Your task to perform on an android device: Play the last video I watched on Youtube Image 0: 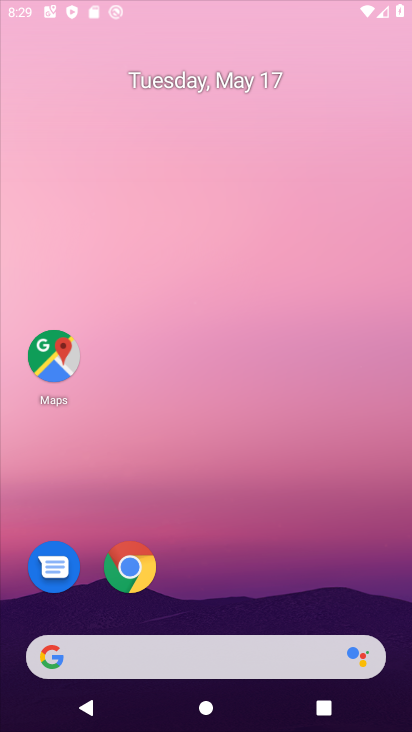
Step 0: drag from (181, 247) to (159, 149)
Your task to perform on an android device: Play the last video I watched on Youtube Image 1: 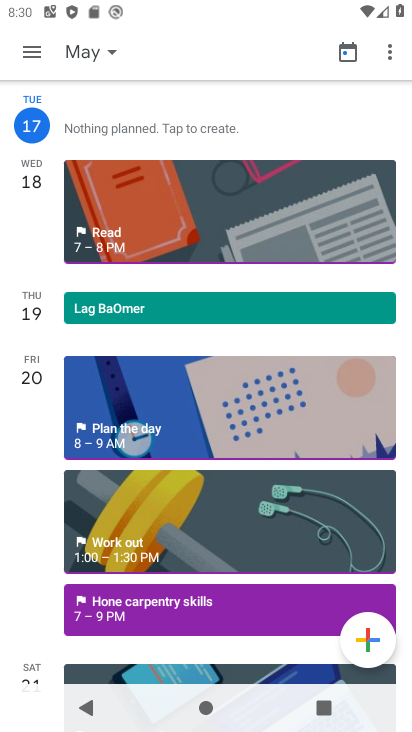
Step 1: press home button
Your task to perform on an android device: Play the last video I watched on Youtube Image 2: 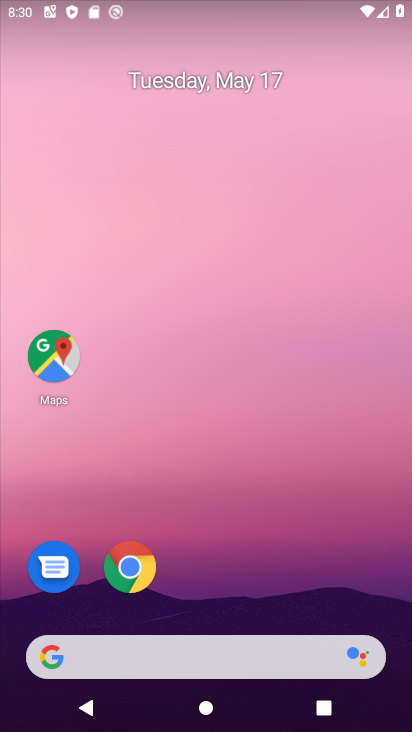
Step 2: drag from (255, 539) to (165, 7)
Your task to perform on an android device: Play the last video I watched on Youtube Image 3: 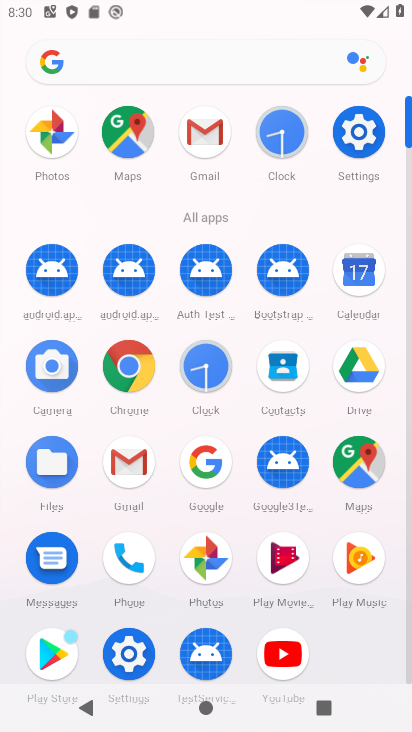
Step 3: click (279, 658)
Your task to perform on an android device: Play the last video I watched on Youtube Image 4: 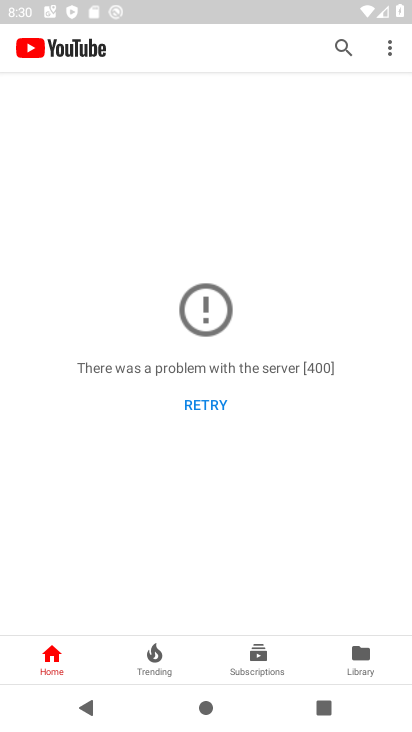
Step 4: click (359, 665)
Your task to perform on an android device: Play the last video I watched on Youtube Image 5: 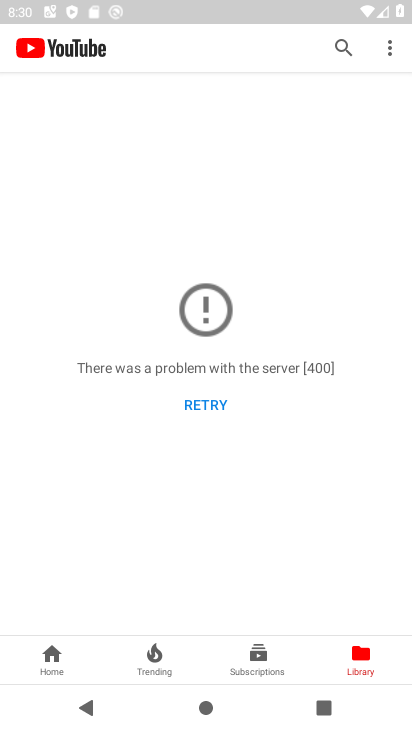
Step 5: click (45, 652)
Your task to perform on an android device: Play the last video I watched on Youtube Image 6: 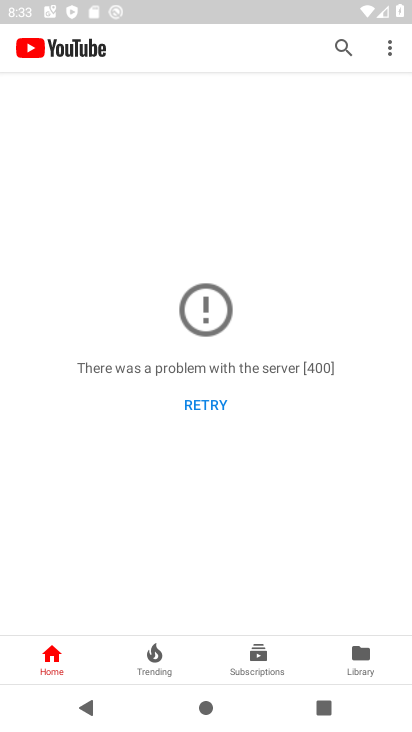
Step 6: task complete